Your task to perform on an android device: change the clock style Image 0: 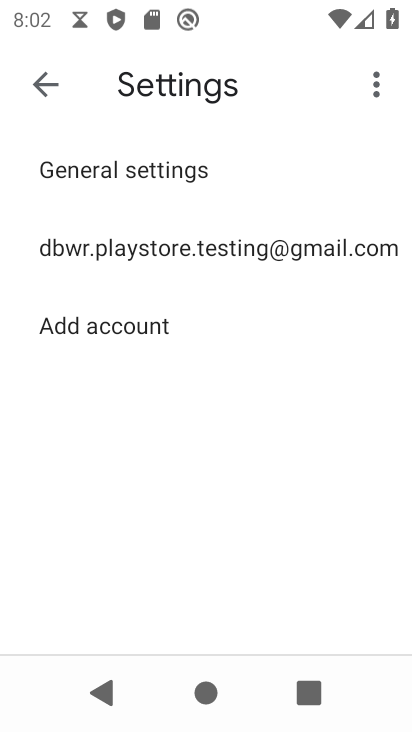
Step 0: press home button
Your task to perform on an android device: change the clock style Image 1: 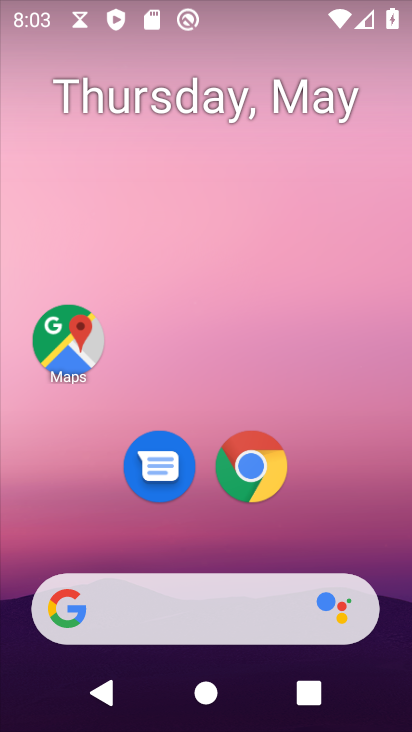
Step 1: drag from (199, 561) to (150, 0)
Your task to perform on an android device: change the clock style Image 2: 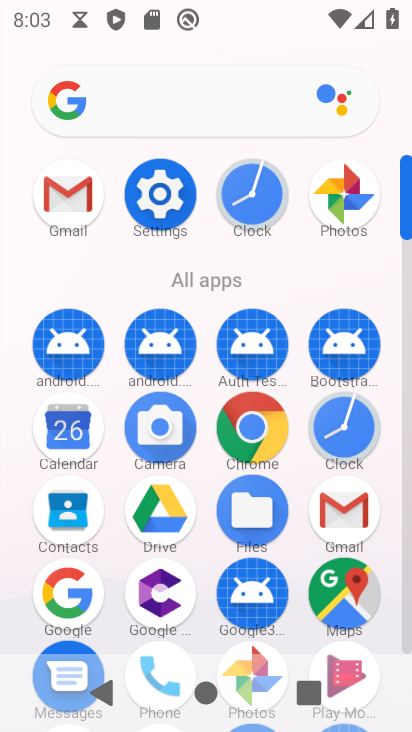
Step 2: click (351, 460)
Your task to perform on an android device: change the clock style Image 3: 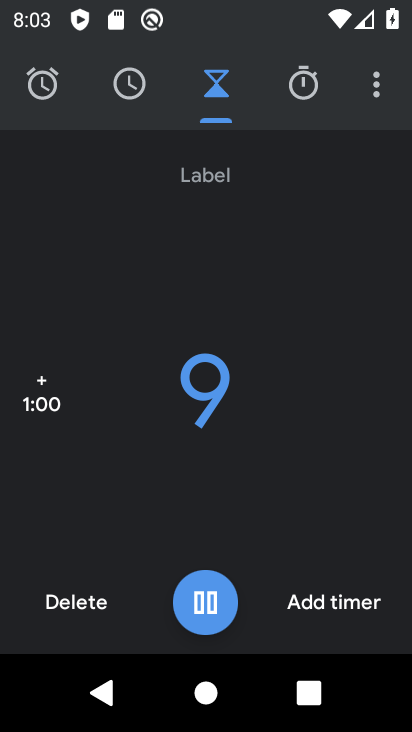
Step 3: click (387, 83)
Your task to perform on an android device: change the clock style Image 4: 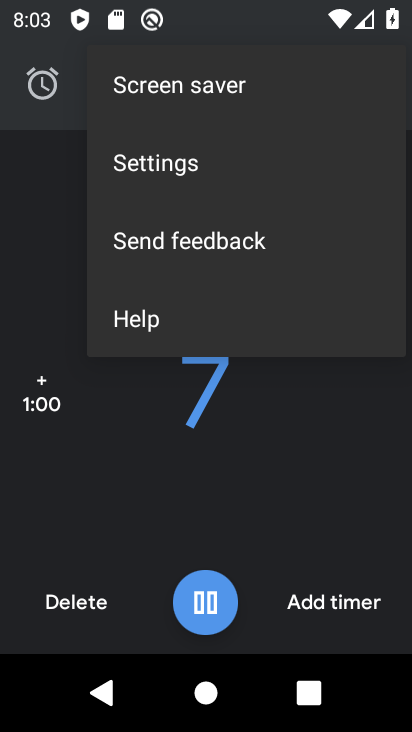
Step 4: click (195, 170)
Your task to perform on an android device: change the clock style Image 5: 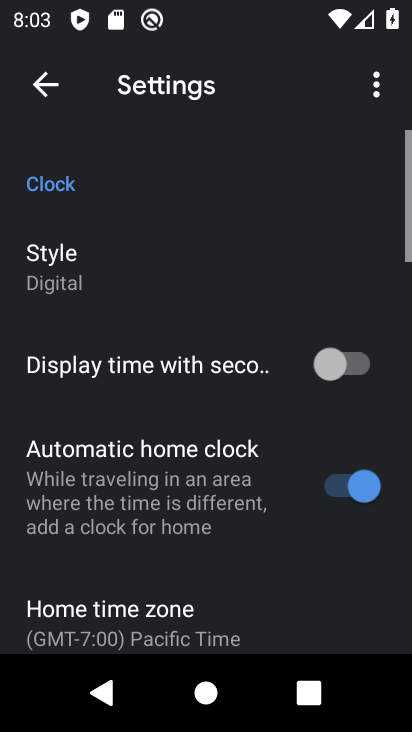
Step 5: click (69, 264)
Your task to perform on an android device: change the clock style Image 6: 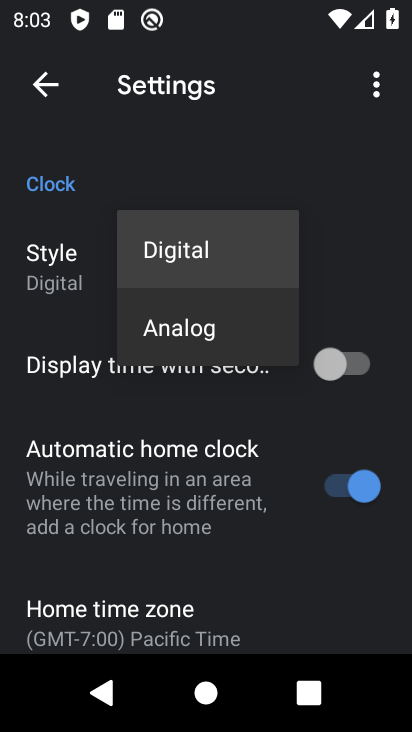
Step 6: click (229, 321)
Your task to perform on an android device: change the clock style Image 7: 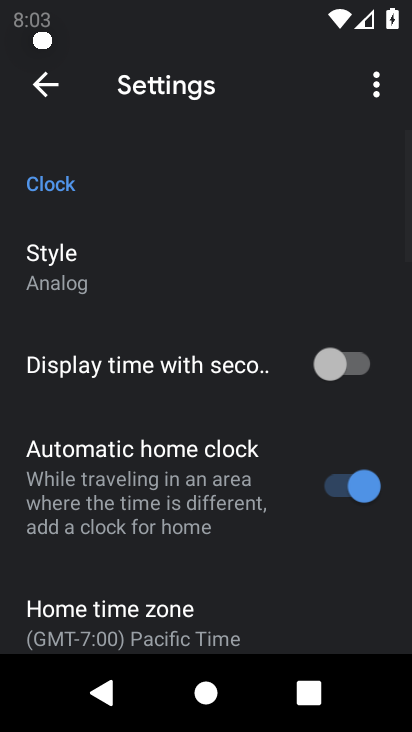
Step 7: task complete